Your task to perform on an android device: open app "Pinterest" (install if not already installed) Image 0: 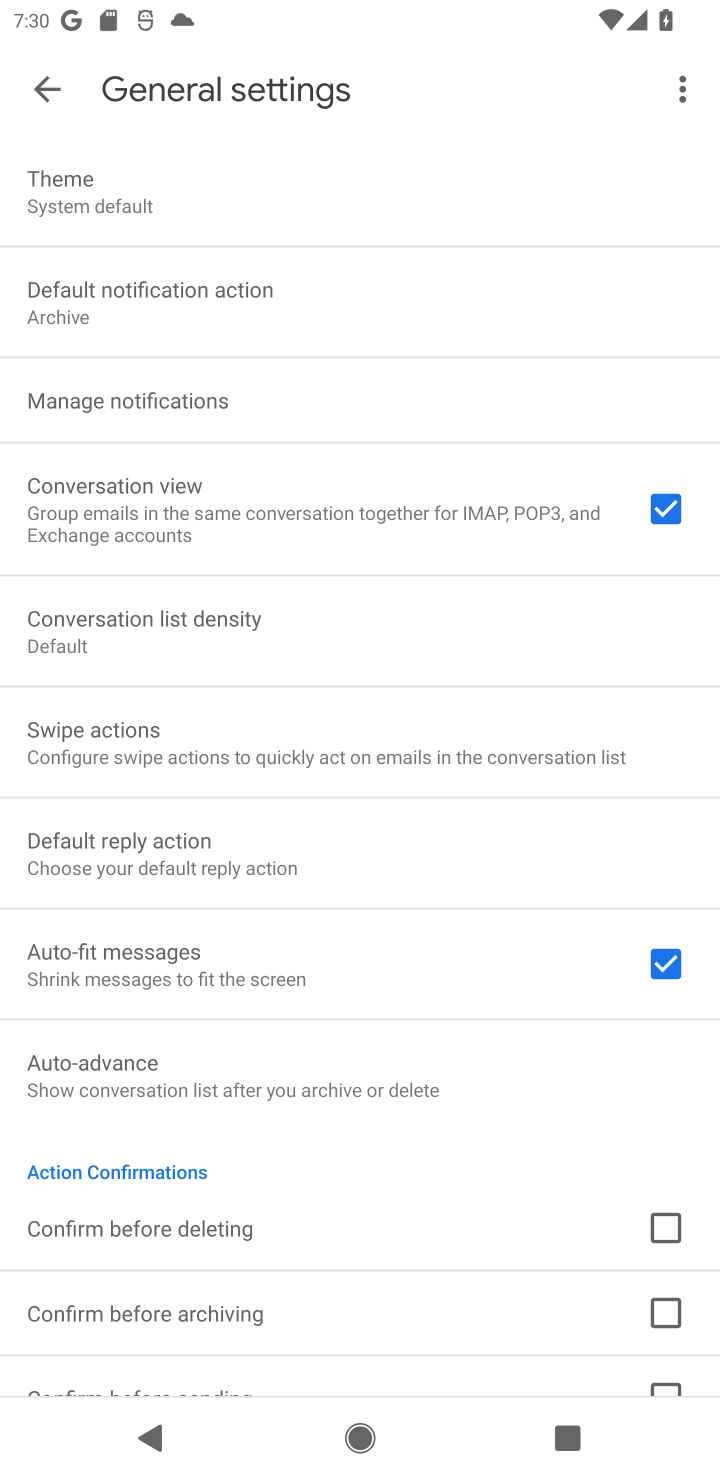
Step 0: press home button
Your task to perform on an android device: open app "Pinterest" (install if not already installed) Image 1: 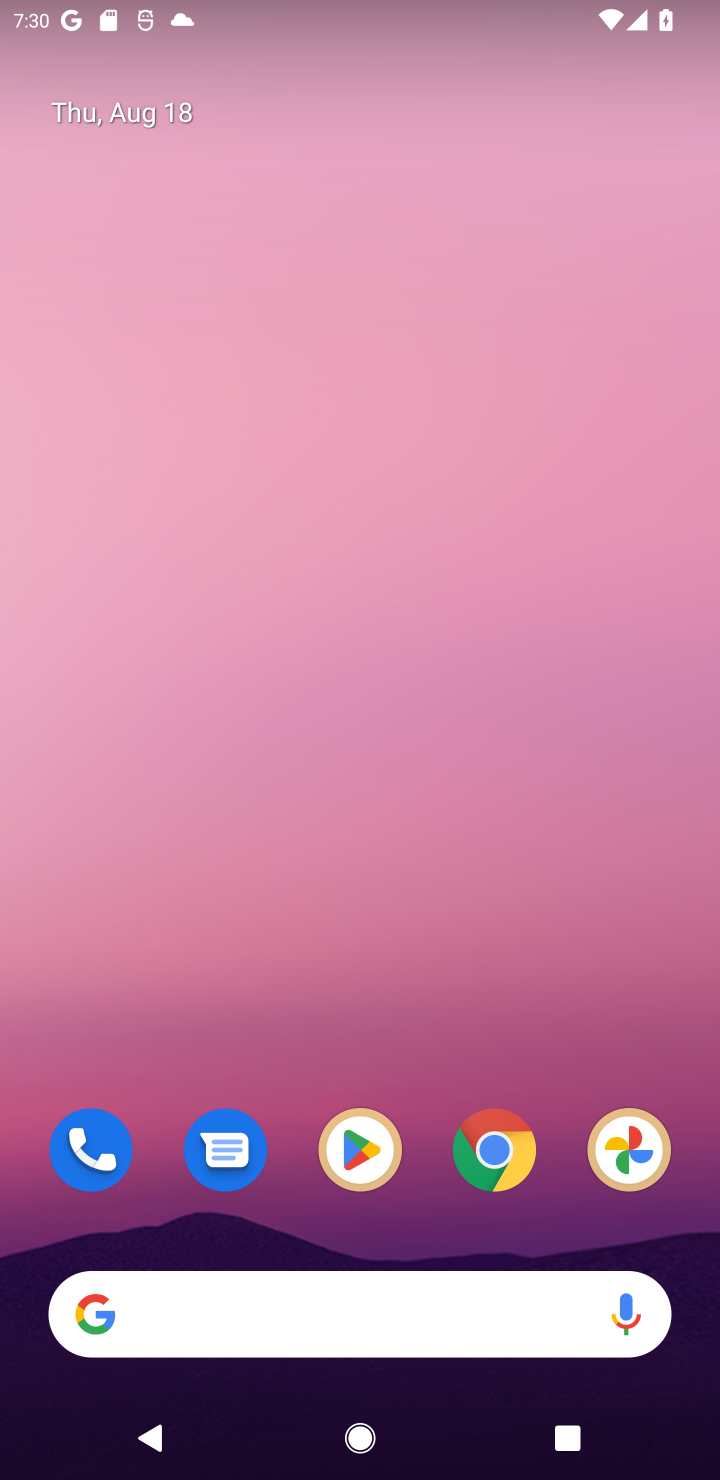
Step 1: click (365, 1172)
Your task to perform on an android device: open app "Pinterest" (install if not already installed) Image 2: 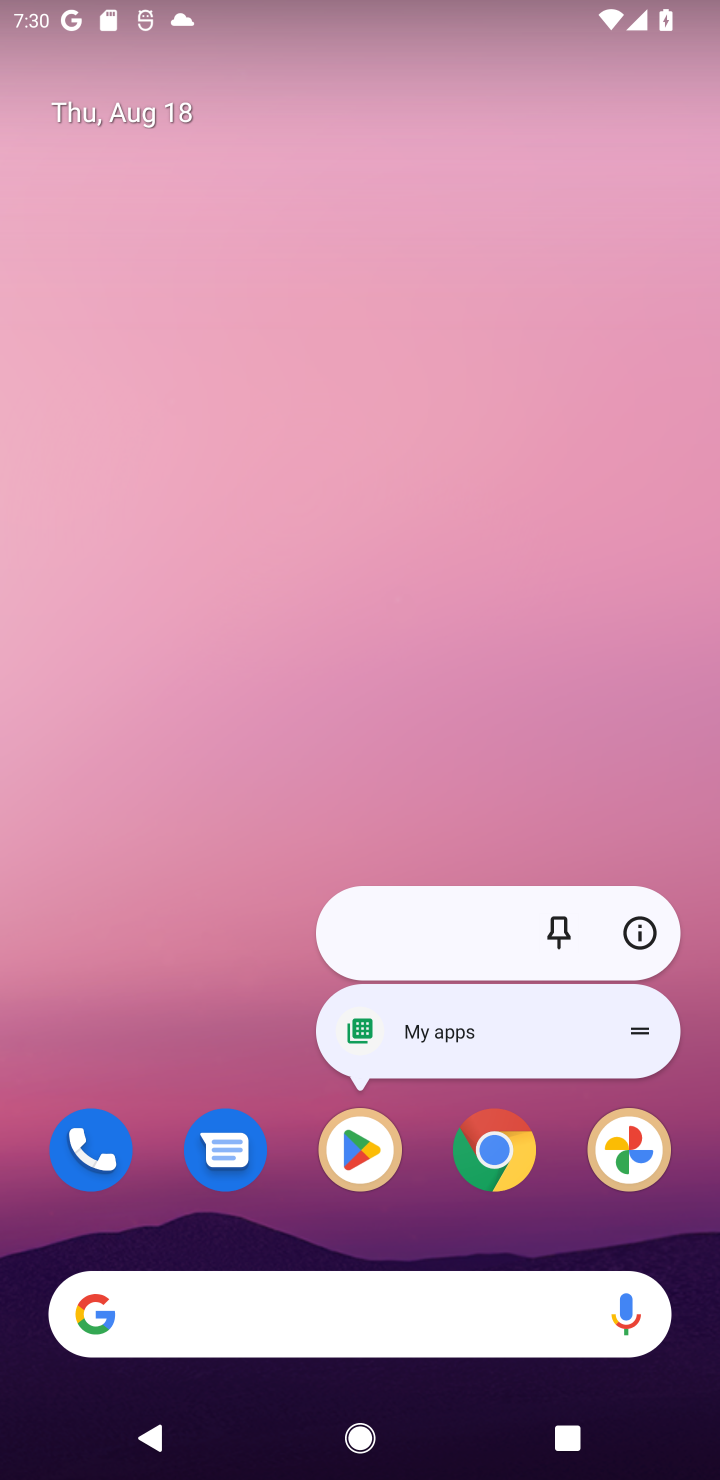
Step 2: click (363, 1171)
Your task to perform on an android device: open app "Pinterest" (install if not already installed) Image 3: 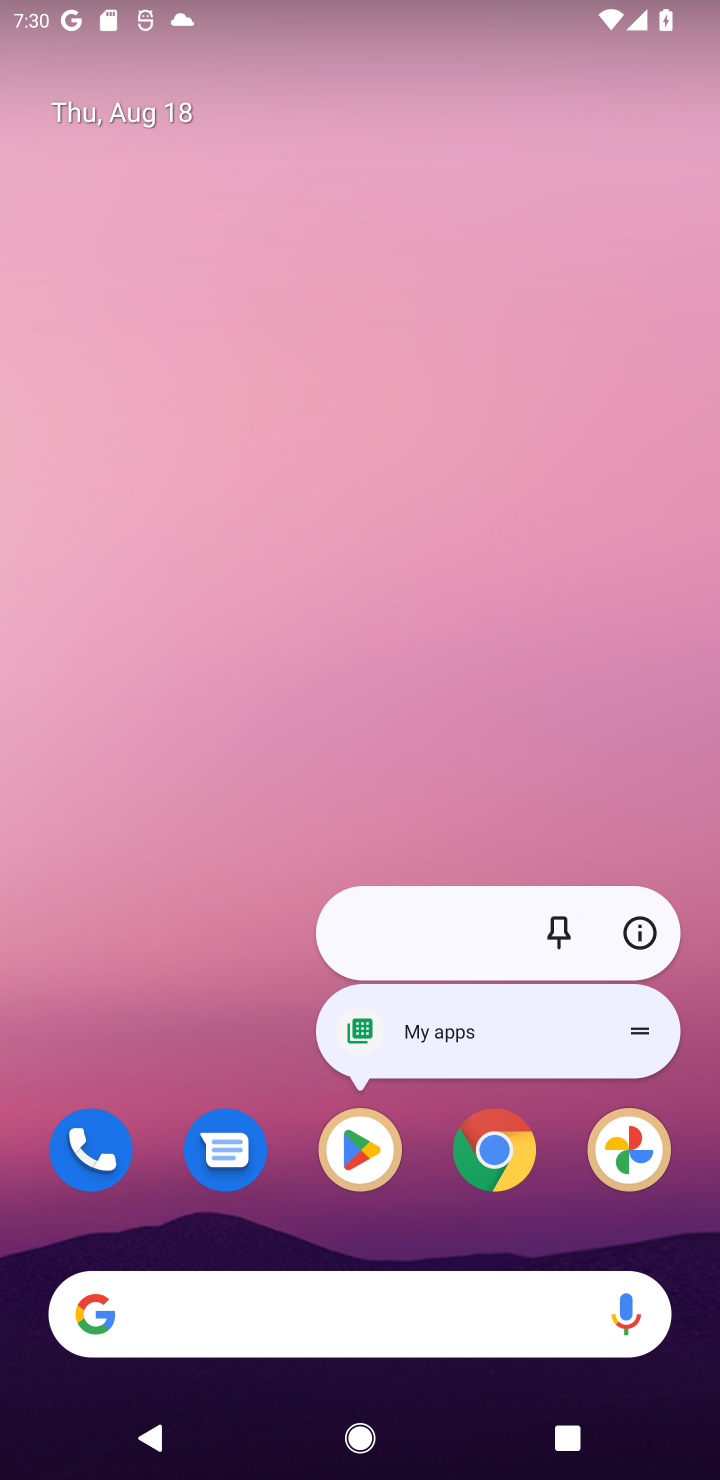
Step 3: click (363, 1171)
Your task to perform on an android device: open app "Pinterest" (install if not already installed) Image 4: 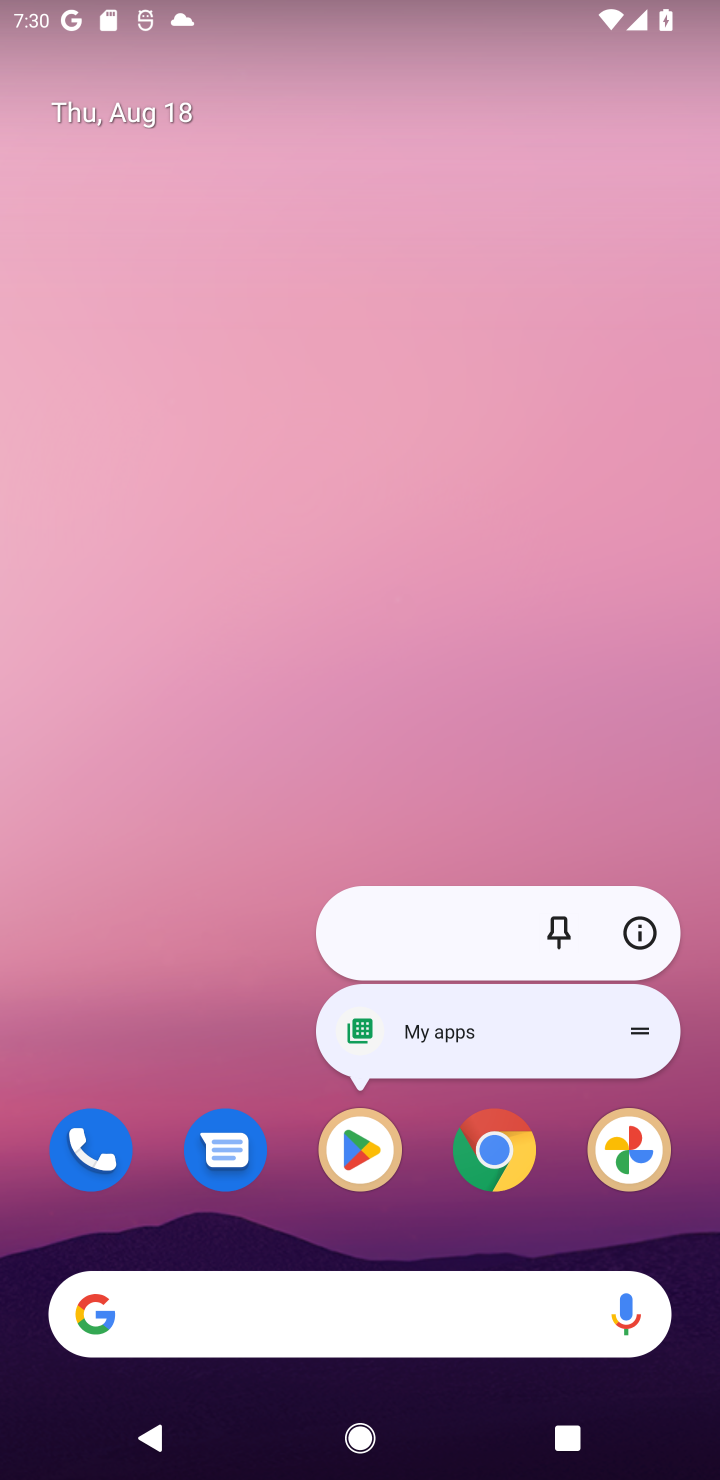
Step 4: click (363, 1171)
Your task to perform on an android device: open app "Pinterest" (install if not already installed) Image 5: 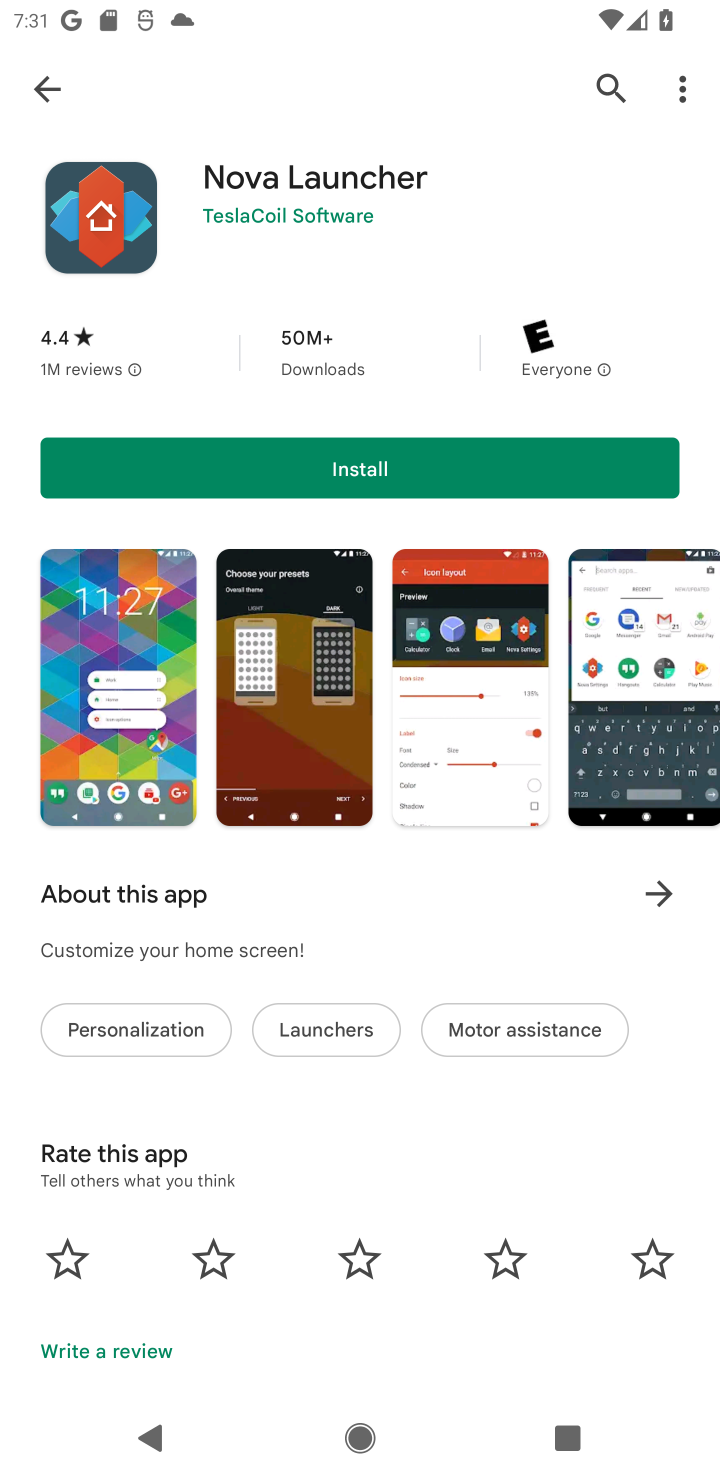
Step 5: click (35, 92)
Your task to perform on an android device: open app "Pinterest" (install if not already installed) Image 6: 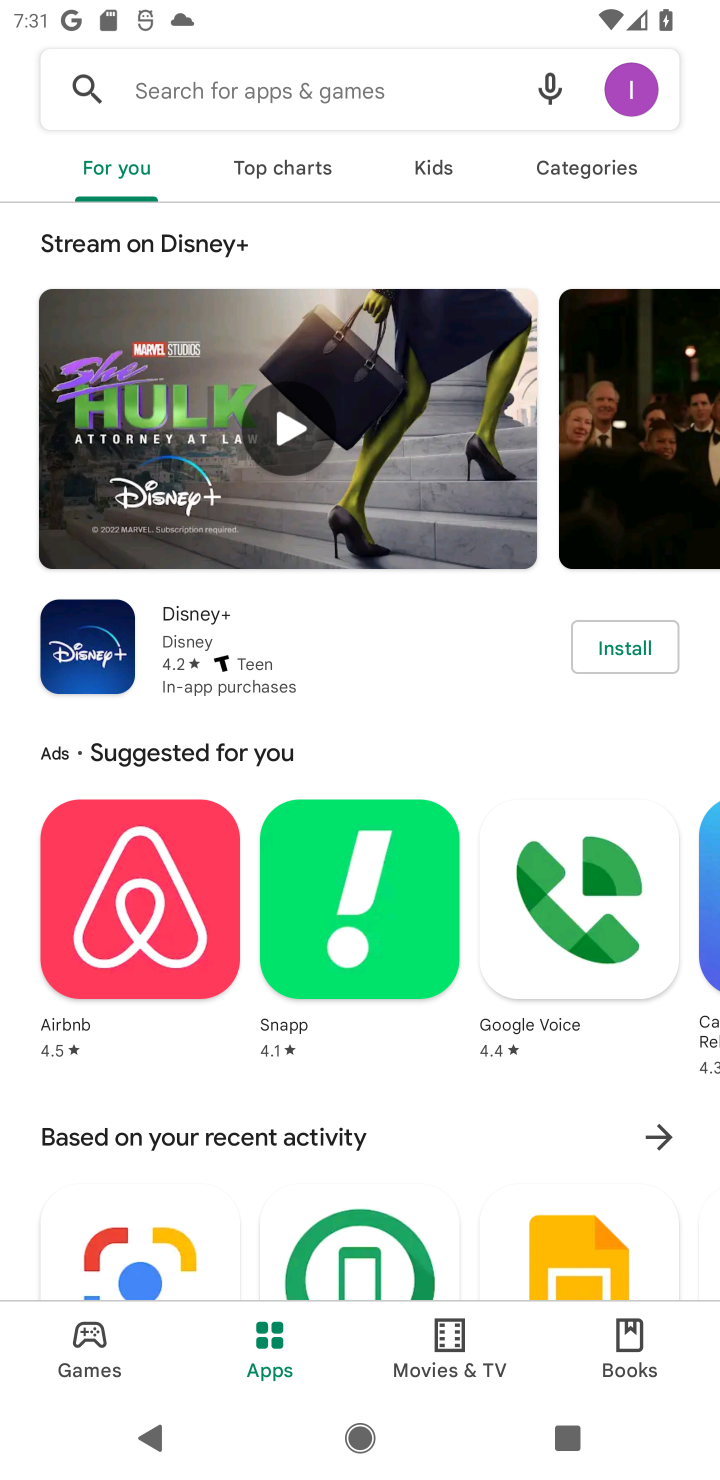
Step 6: click (269, 100)
Your task to perform on an android device: open app "Pinterest" (install if not already installed) Image 7: 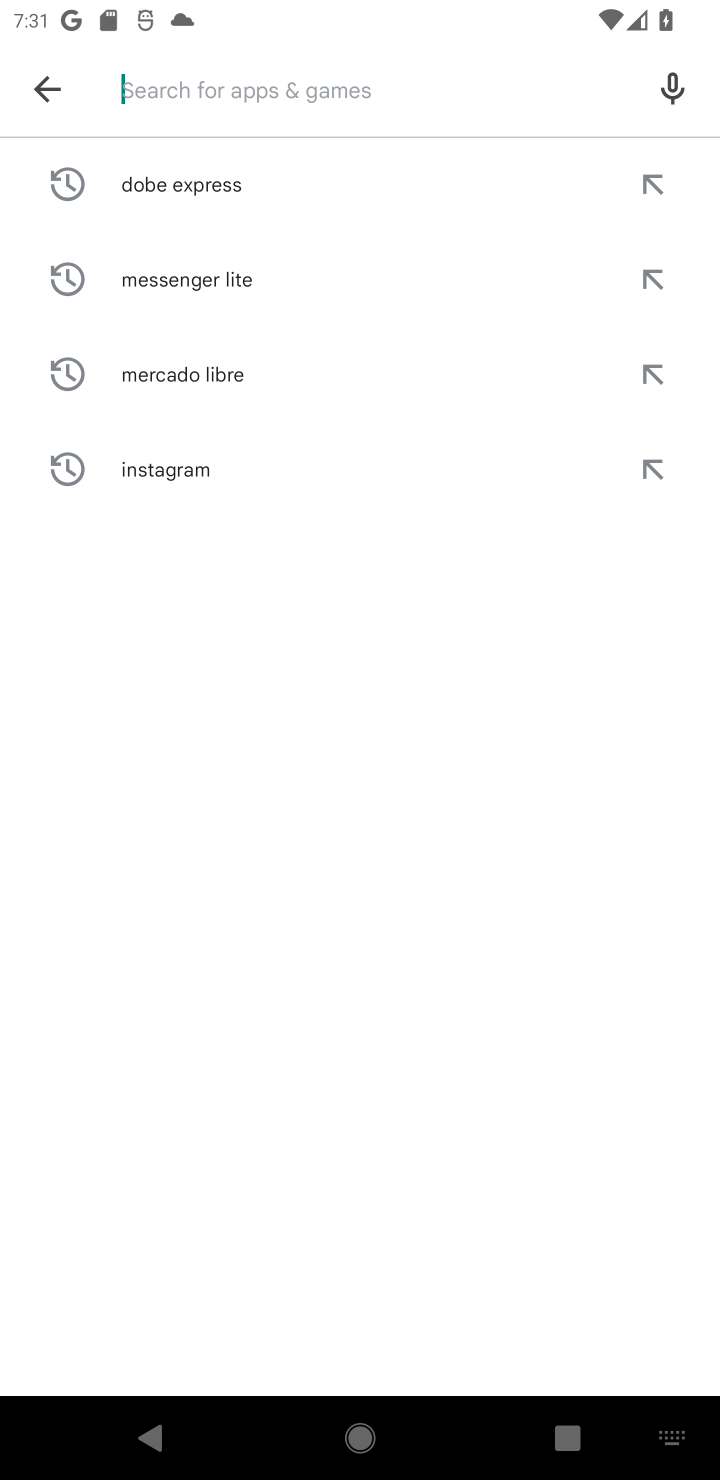
Step 7: type "Pinterest"
Your task to perform on an android device: open app "Pinterest" (install if not already installed) Image 8: 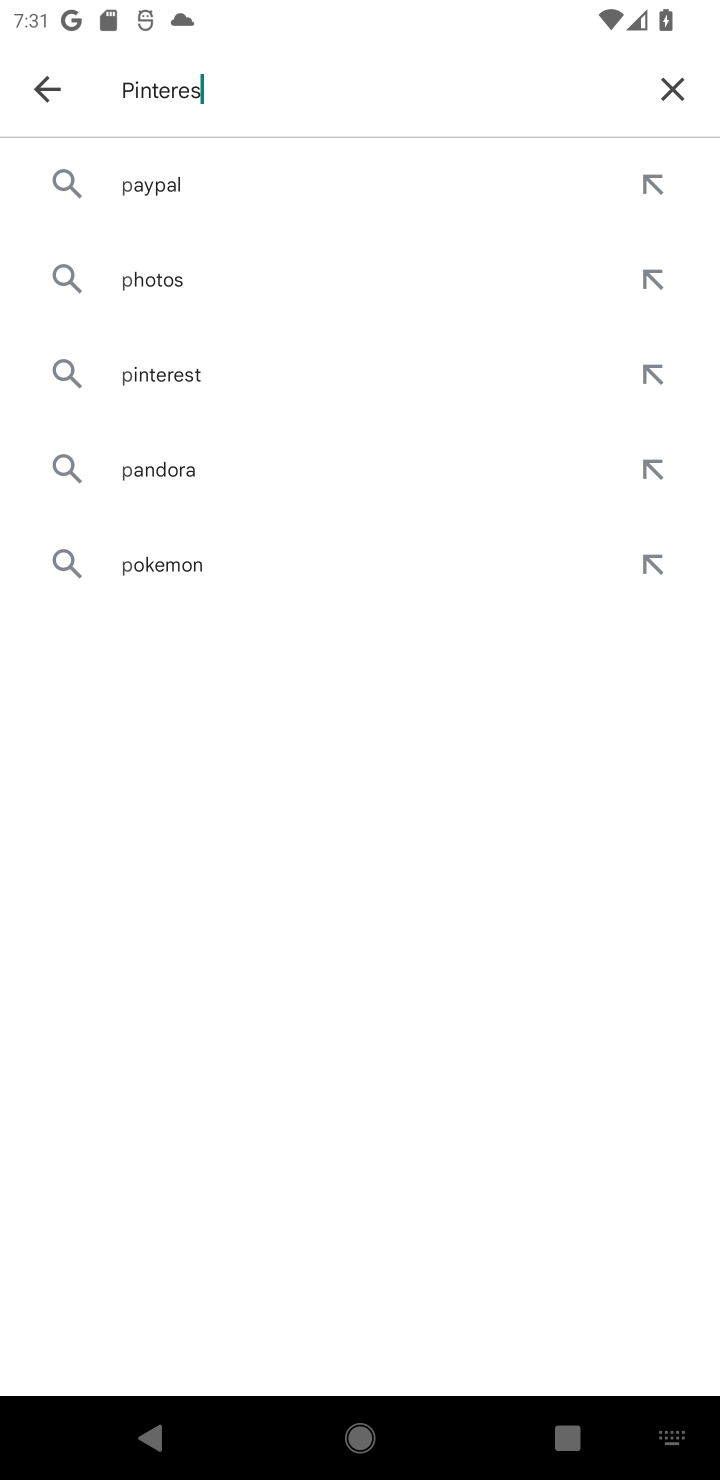
Step 8: type ""
Your task to perform on an android device: open app "Pinterest" (install if not already installed) Image 9: 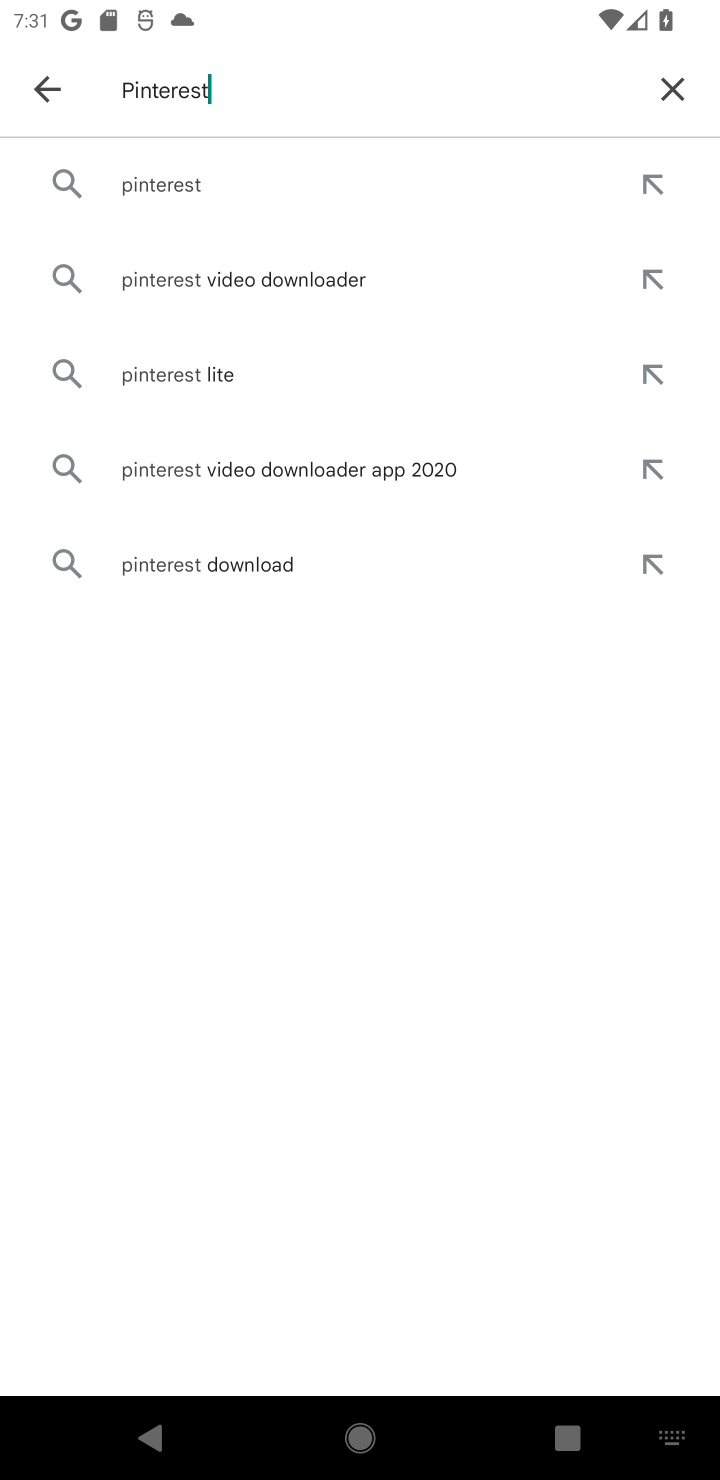
Step 9: click (204, 193)
Your task to perform on an android device: open app "Pinterest" (install if not already installed) Image 10: 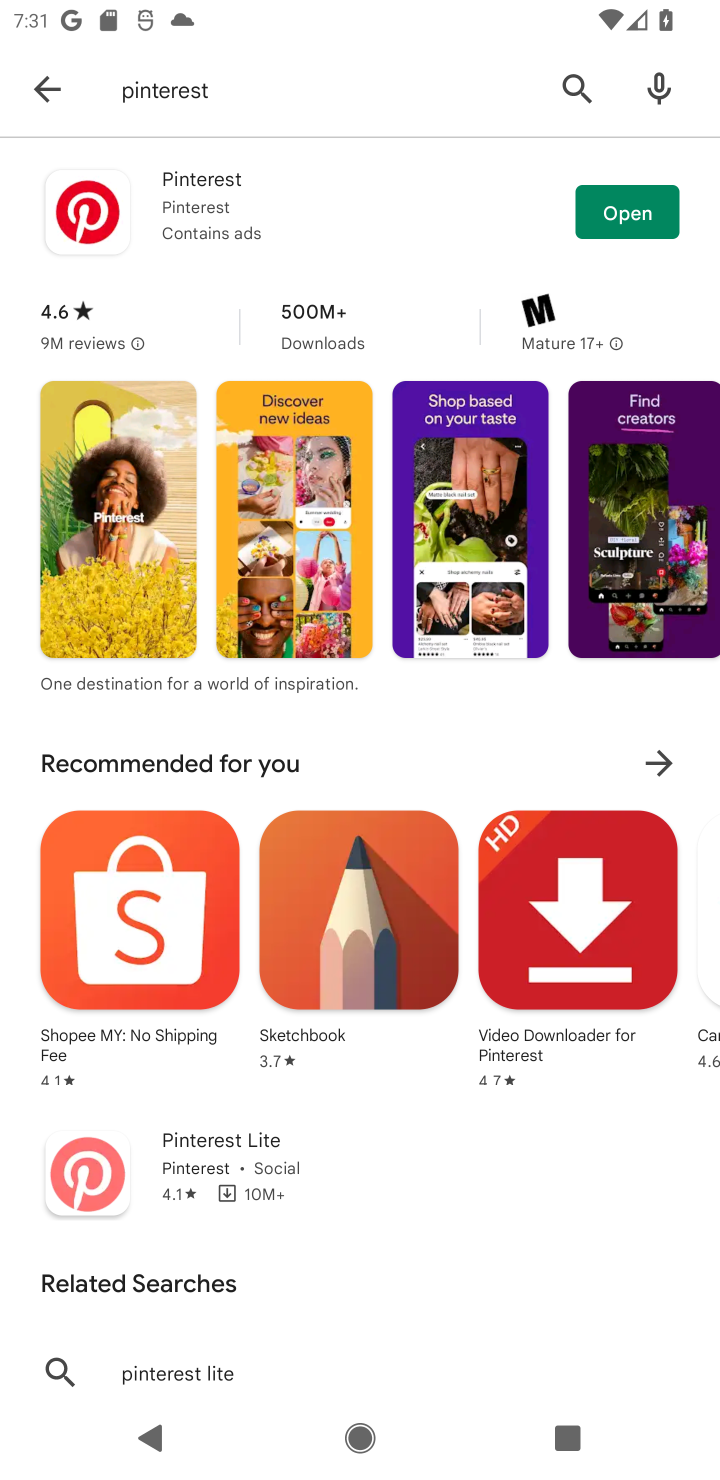
Step 10: click (644, 213)
Your task to perform on an android device: open app "Pinterest" (install if not already installed) Image 11: 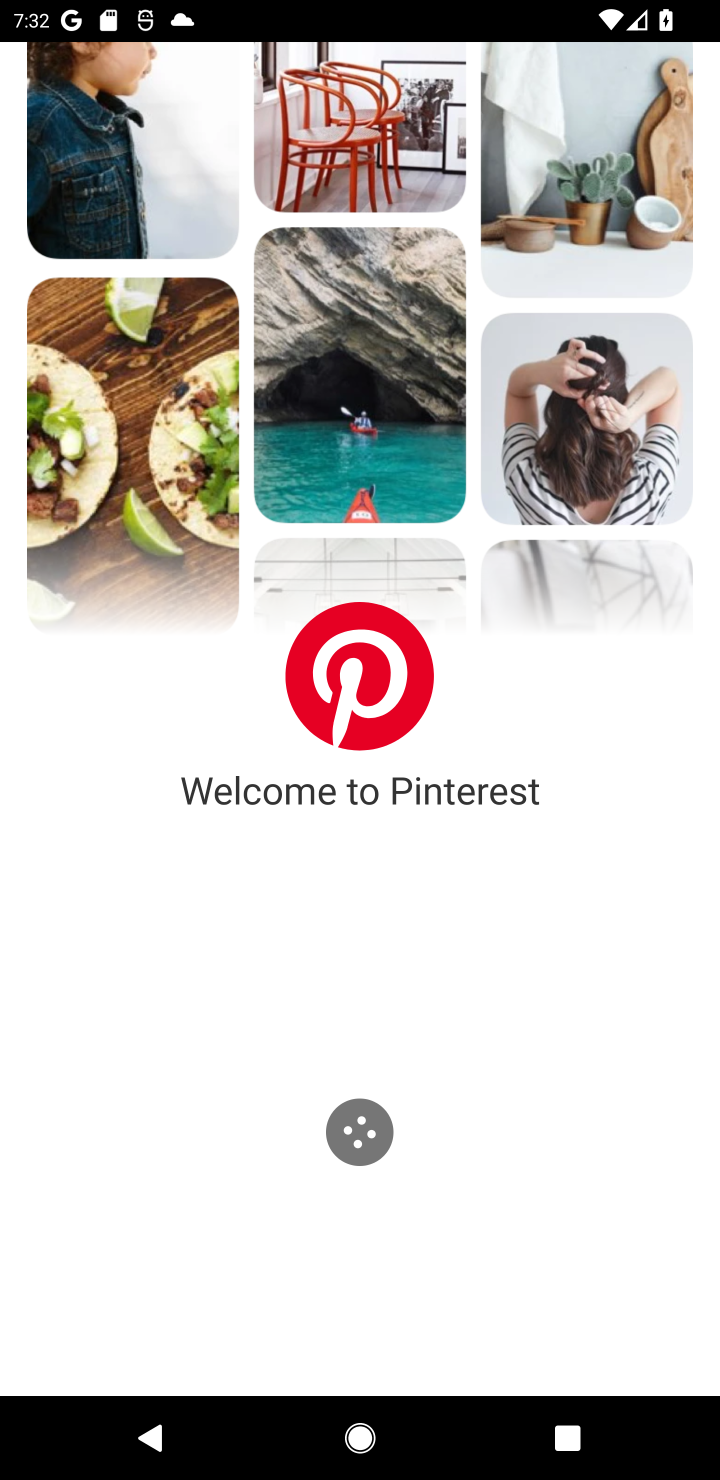
Step 11: task complete